Your task to perform on an android device: turn off data saver in the chrome app Image 0: 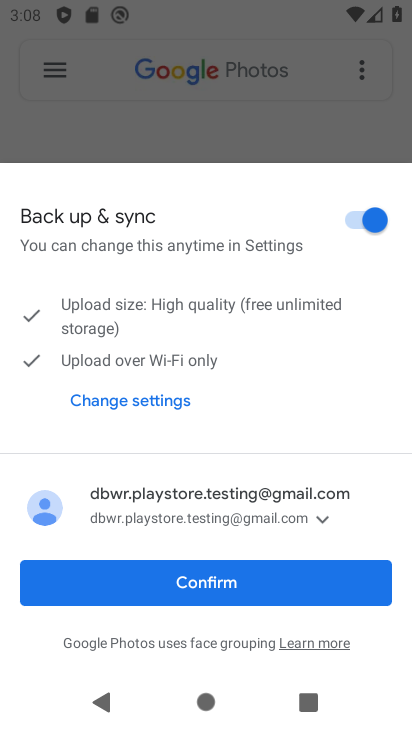
Step 0: press home button
Your task to perform on an android device: turn off data saver in the chrome app Image 1: 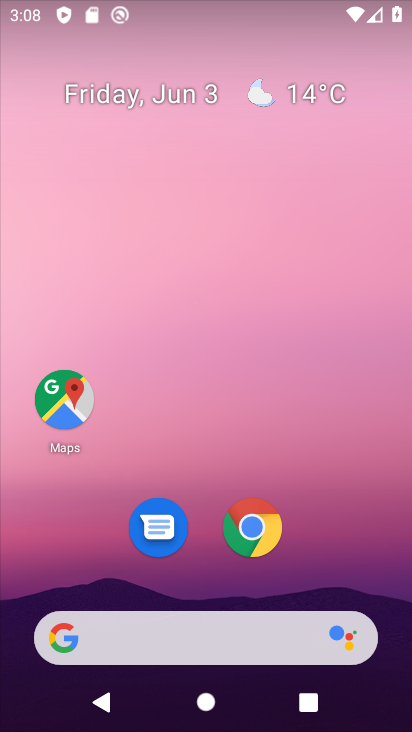
Step 1: click (254, 527)
Your task to perform on an android device: turn off data saver in the chrome app Image 2: 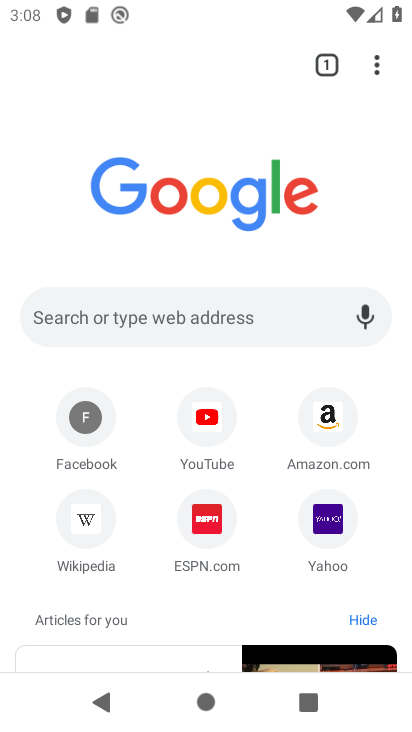
Step 2: click (376, 63)
Your task to perform on an android device: turn off data saver in the chrome app Image 3: 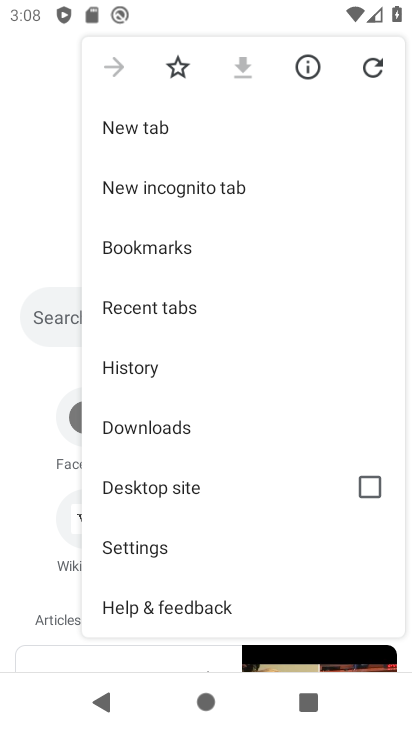
Step 3: click (141, 544)
Your task to perform on an android device: turn off data saver in the chrome app Image 4: 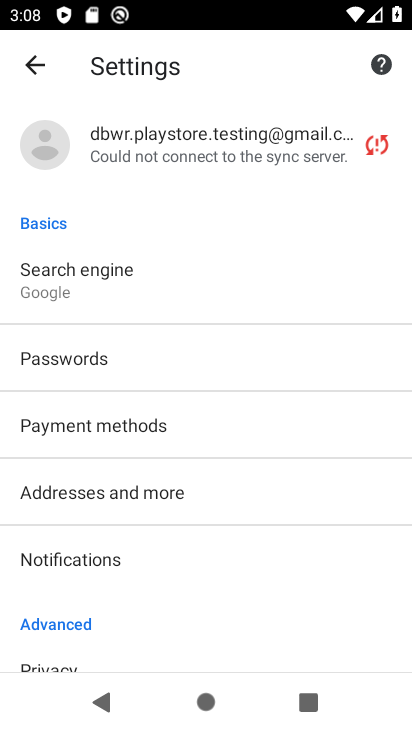
Step 4: drag from (105, 594) to (188, 459)
Your task to perform on an android device: turn off data saver in the chrome app Image 5: 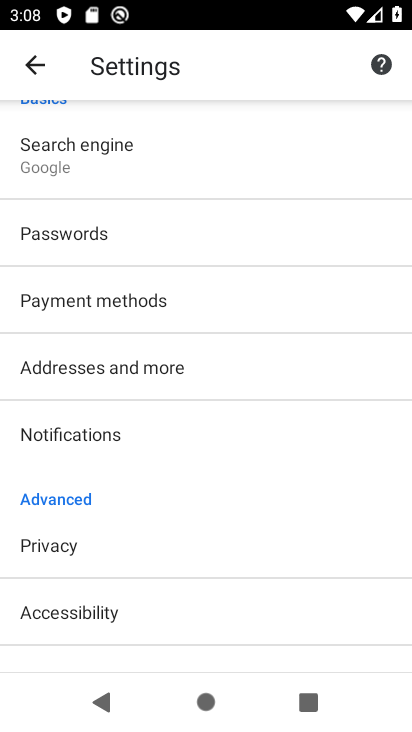
Step 5: drag from (112, 534) to (170, 436)
Your task to perform on an android device: turn off data saver in the chrome app Image 6: 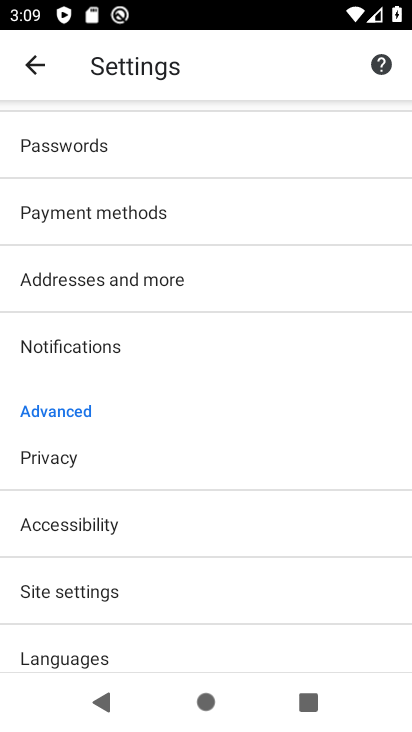
Step 6: drag from (147, 590) to (172, 442)
Your task to perform on an android device: turn off data saver in the chrome app Image 7: 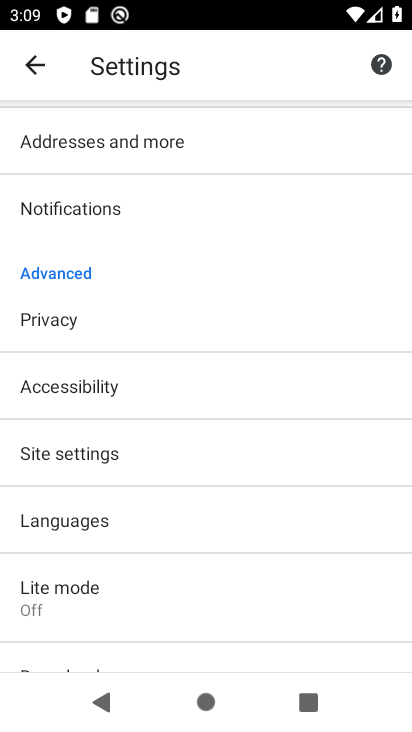
Step 7: click (54, 579)
Your task to perform on an android device: turn off data saver in the chrome app Image 8: 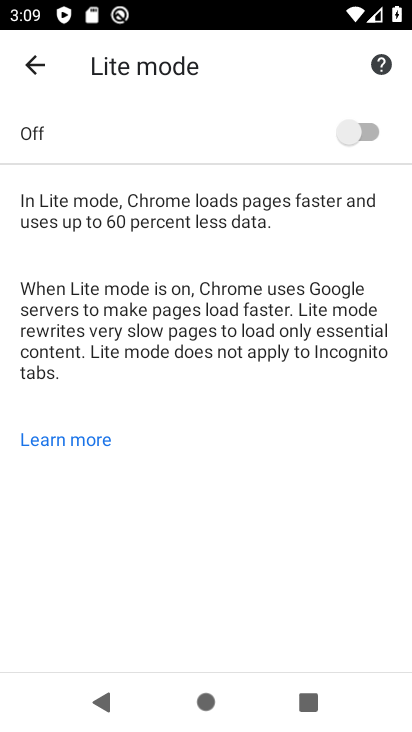
Step 8: task complete